Your task to perform on an android device: turn smart compose on in the gmail app Image 0: 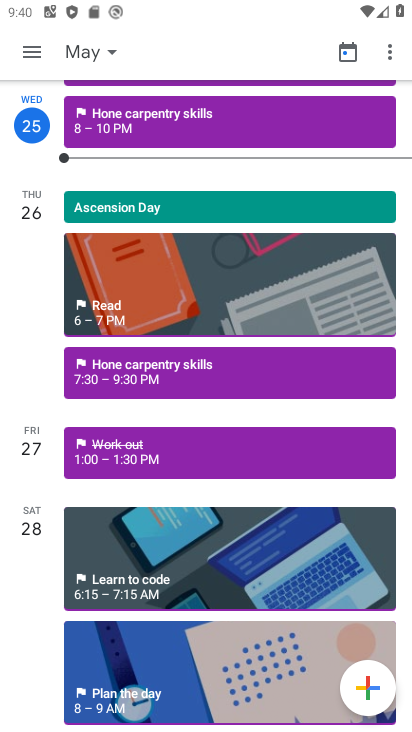
Step 0: press home button
Your task to perform on an android device: turn smart compose on in the gmail app Image 1: 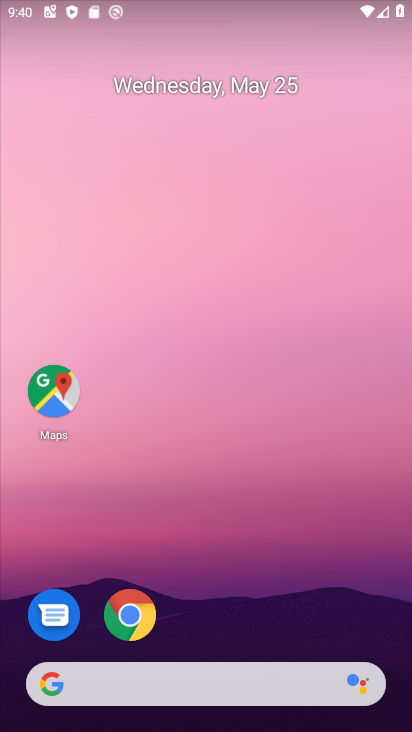
Step 1: drag from (249, 497) to (263, 30)
Your task to perform on an android device: turn smart compose on in the gmail app Image 2: 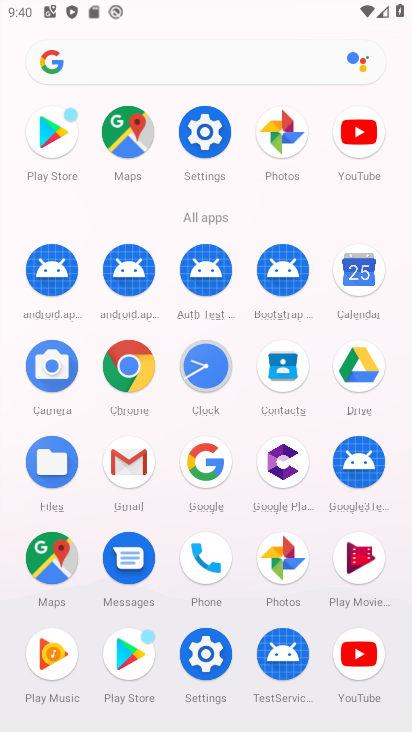
Step 2: click (137, 443)
Your task to perform on an android device: turn smart compose on in the gmail app Image 3: 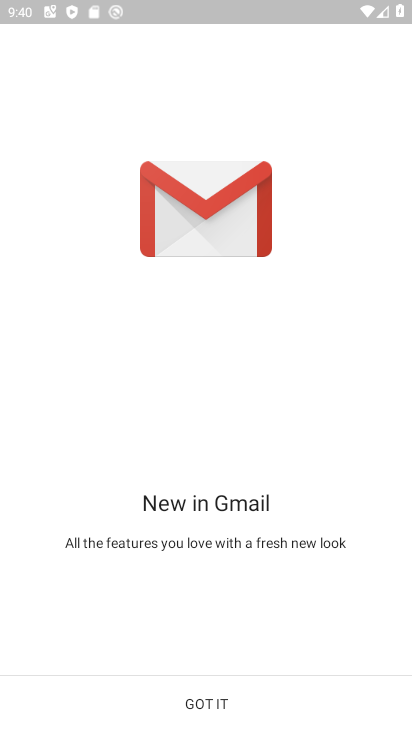
Step 3: click (230, 692)
Your task to perform on an android device: turn smart compose on in the gmail app Image 4: 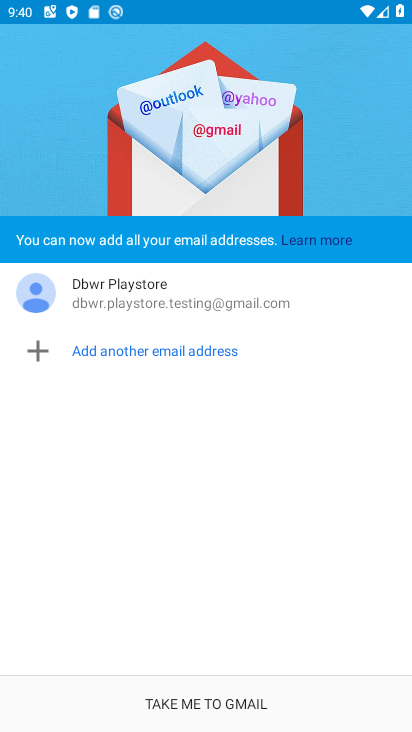
Step 4: click (233, 692)
Your task to perform on an android device: turn smart compose on in the gmail app Image 5: 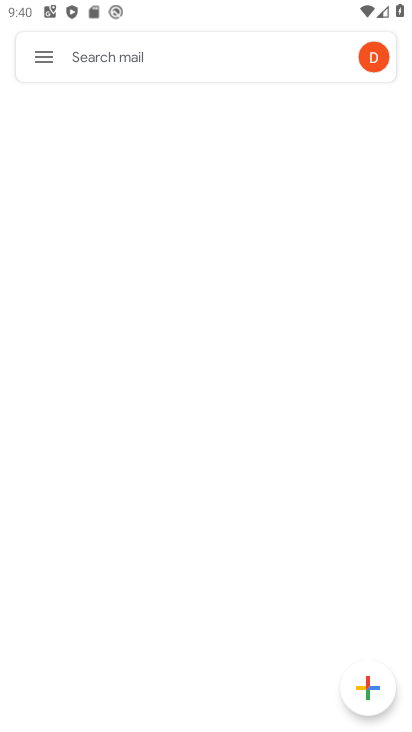
Step 5: click (47, 58)
Your task to perform on an android device: turn smart compose on in the gmail app Image 6: 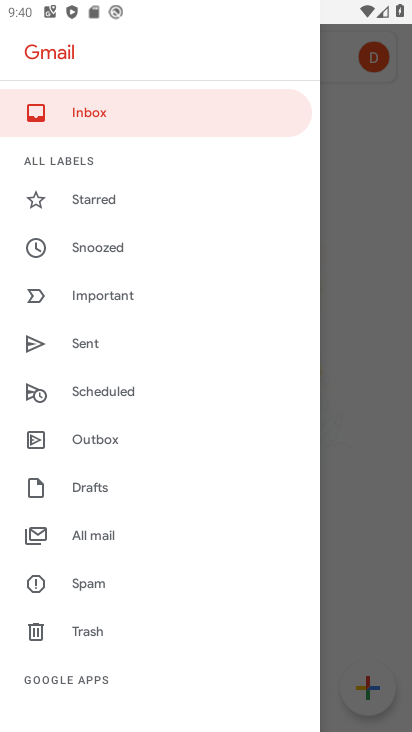
Step 6: drag from (128, 619) to (126, 371)
Your task to perform on an android device: turn smart compose on in the gmail app Image 7: 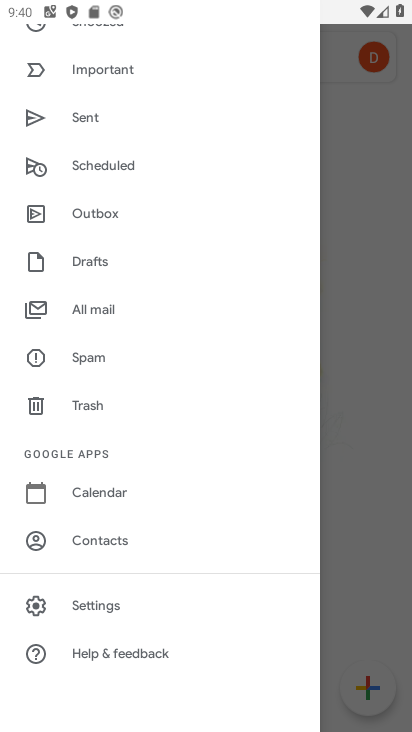
Step 7: click (111, 601)
Your task to perform on an android device: turn smart compose on in the gmail app Image 8: 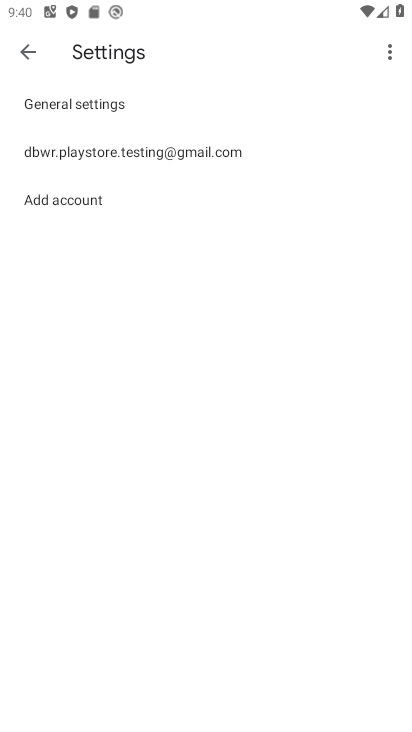
Step 8: click (121, 139)
Your task to perform on an android device: turn smart compose on in the gmail app Image 9: 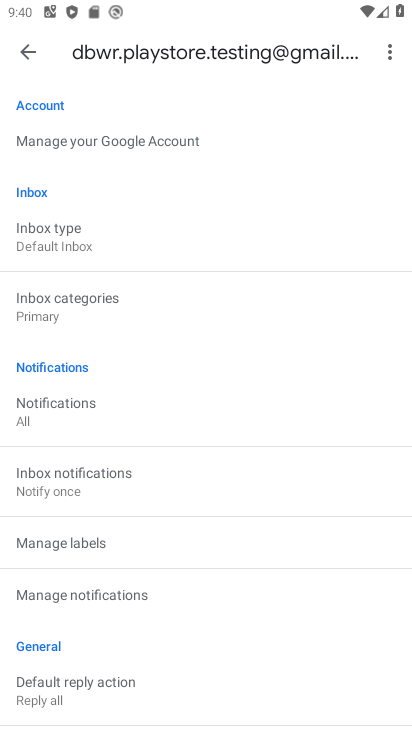
Step 9: task complete